Your task to perform on an android device: clear history in the chrome app Image 0: 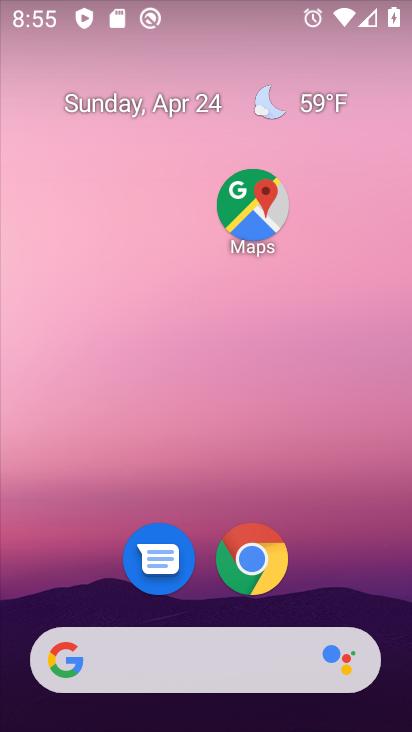
Step 0: click (248, 555)
Your task to perform on an android device: clear history in the chrome app Image 1: 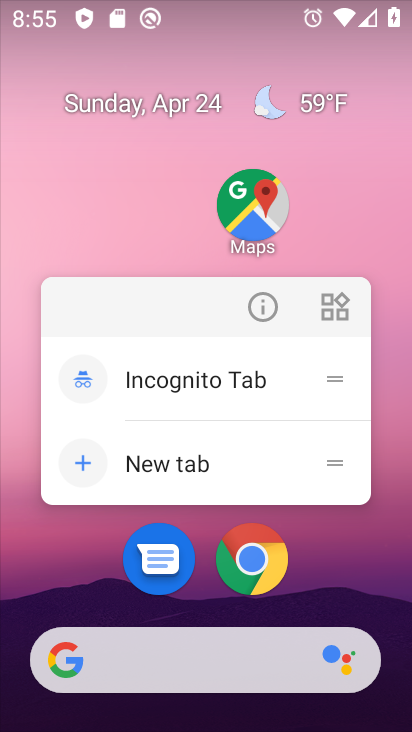
Step 1: click (255, 307)
Your task to perform on an android device: clear history in the chrome app Image 2: 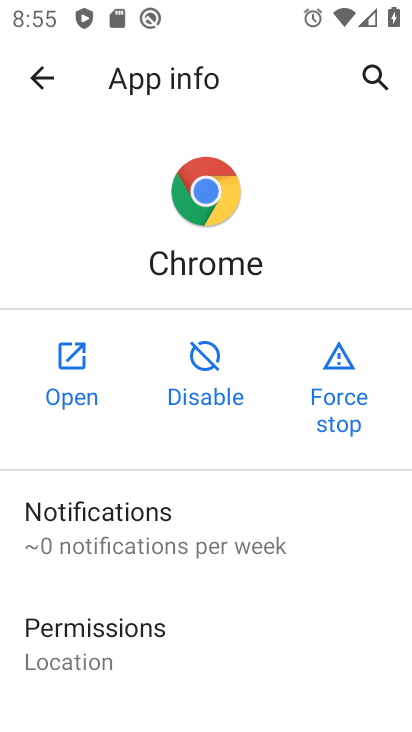
Step 2: click (49, 369)
Your task to perform on an android device: clear history in the chrome app Image 3: 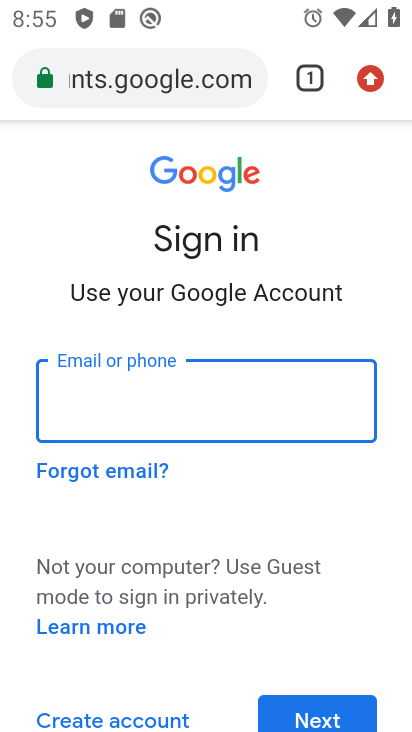
Step 3: click (377, 77)
Your task to perform on an android device: clear history in the chrome app Image 4: 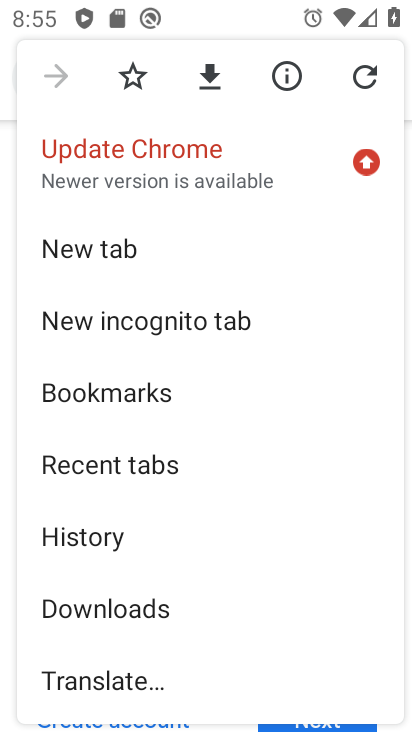
Step 4: drag from (45, 674) to (184, 362)
Your task to perform on an android device: clear history in the chrome app Image 5: 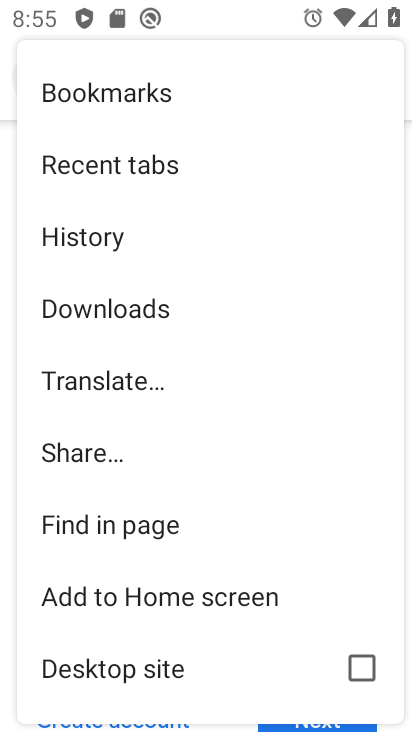
Step 5: click (67, 245)
Your task to perform on an android device: clear history in the chrome app Image 6: 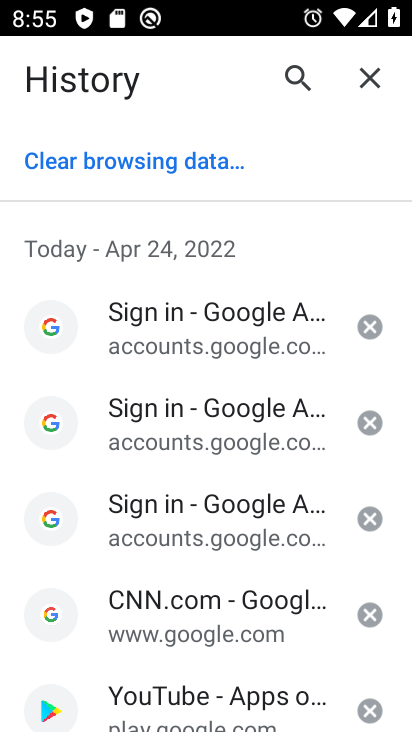
Step 6: click (190, 162)
Your task to perform on an android device: clear history in the chrome app Image 7: 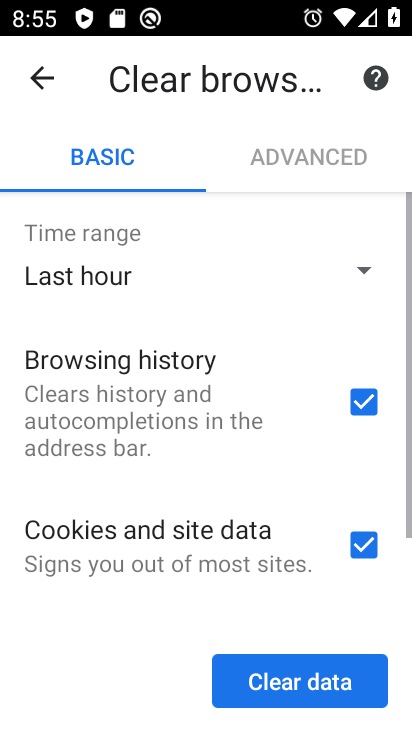
Step 7: click (308, 682)
Your task to perform on an android device: clear history in the chrome app Image 8: 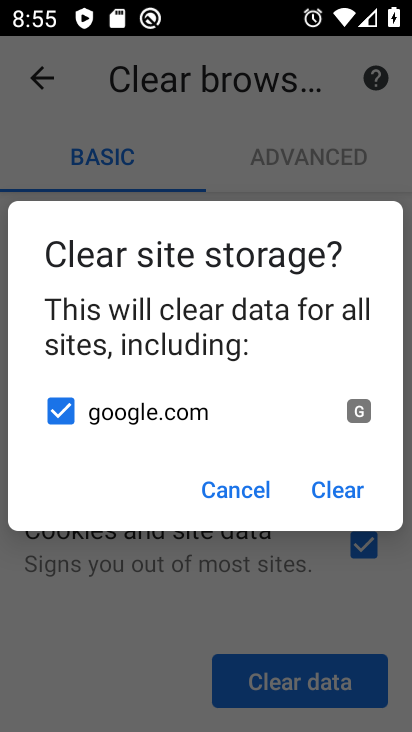
Step 8: click (338, 489)
Your task to perform on an android device: clear history in the chrome app Image 9: 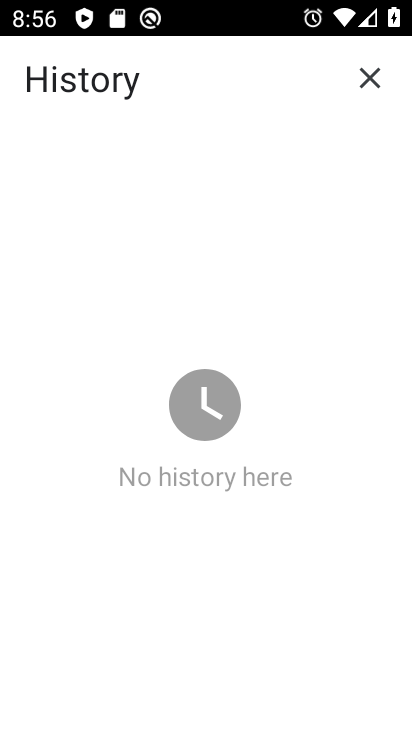
Step 9: task complete